Your task to perform on an android device: check google app version Image 0: 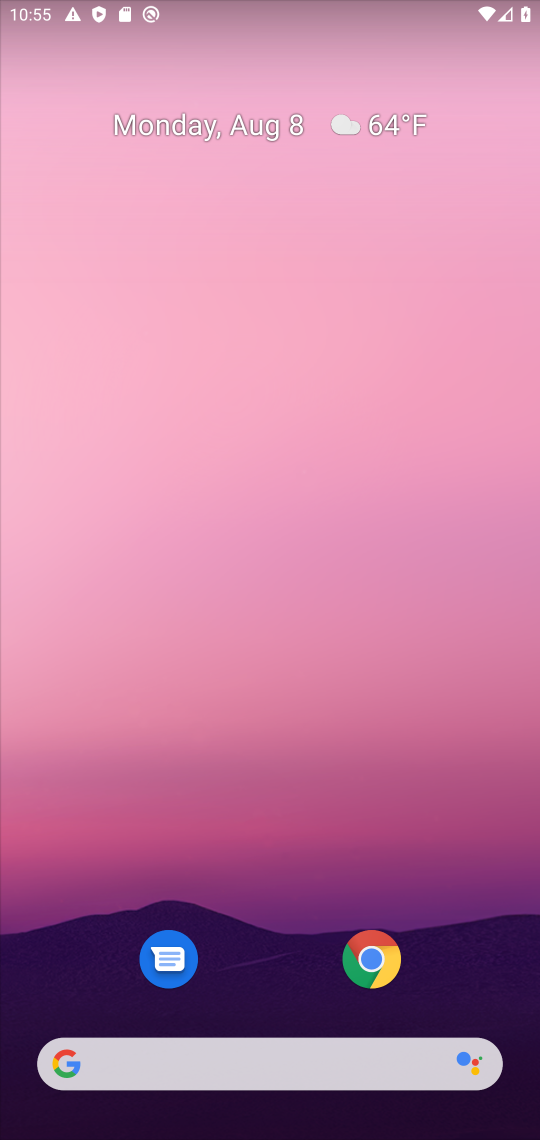
Step 0: drag from (481, 984) to (372, 101)
Your task to perform on an android device: check google app version Image 1: 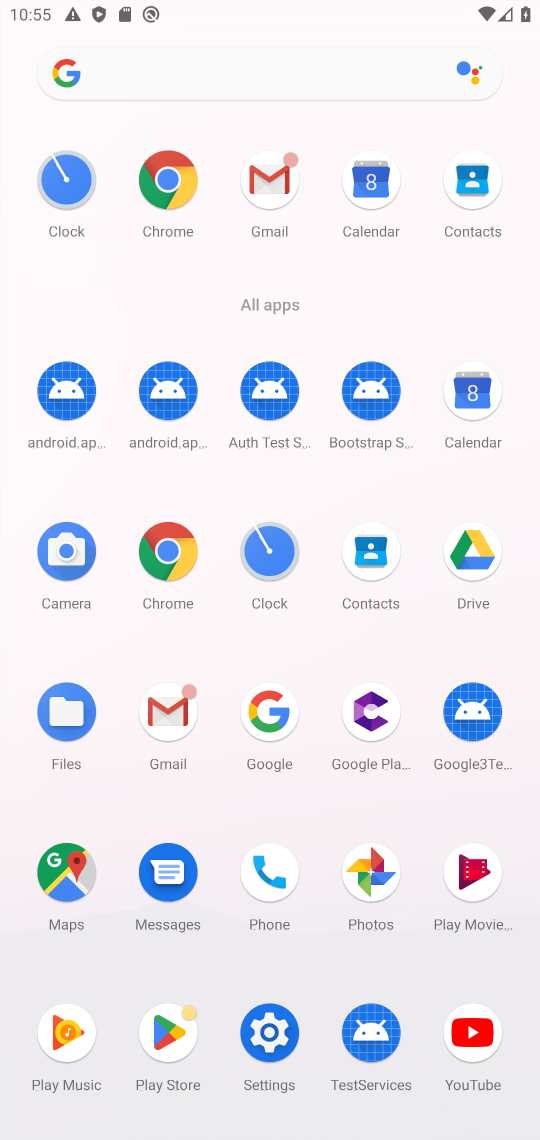
Step 1: click (159, 205)
Your task to perform on an android device: check google app version Image 2: 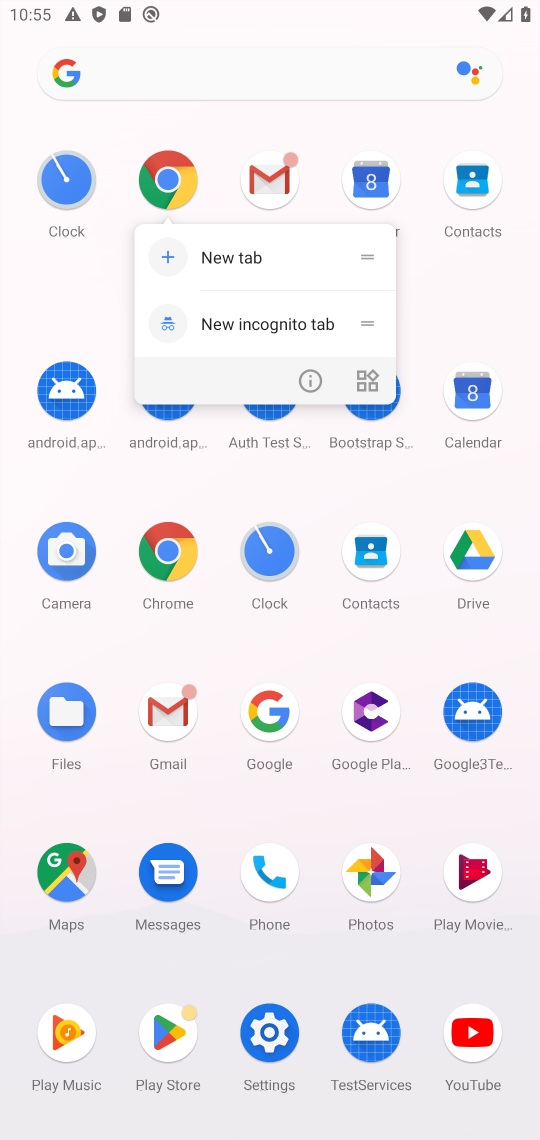
Step 2: click (162, 180)
Your task to perform on an android device: check google app version Image 3: 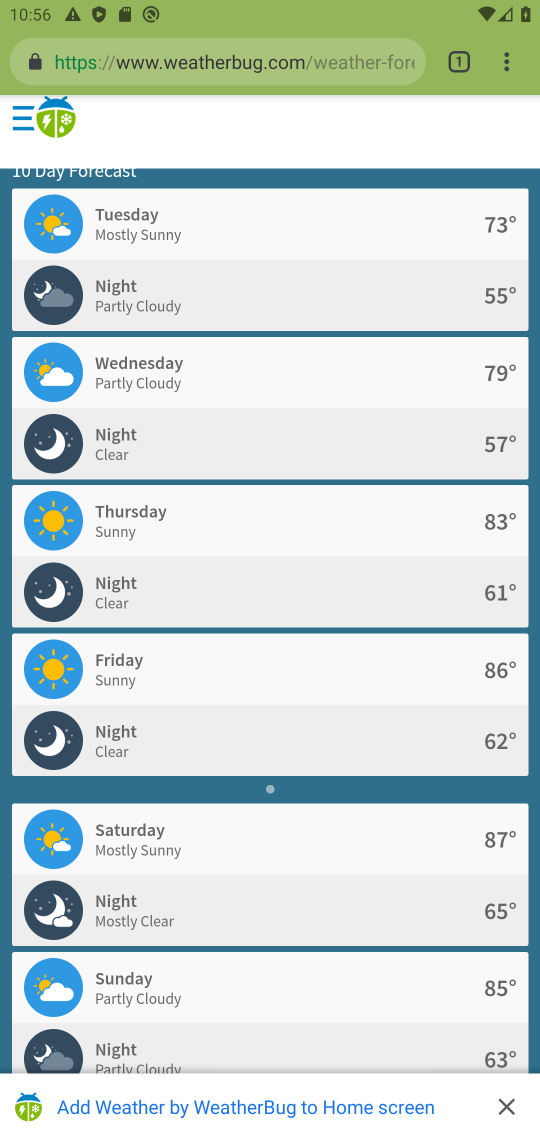
Step 3: click (526, 66)
Your task to perform on an android device: check google app version Image 4: 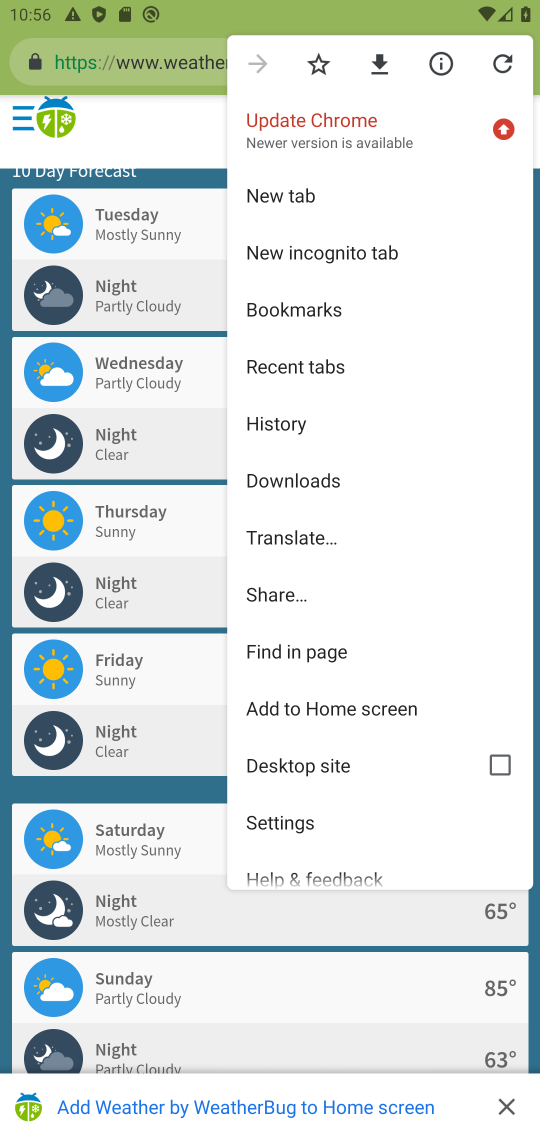
Step 4: click (354, 864)
Your task to perform on an android device: check google app version Image 5: 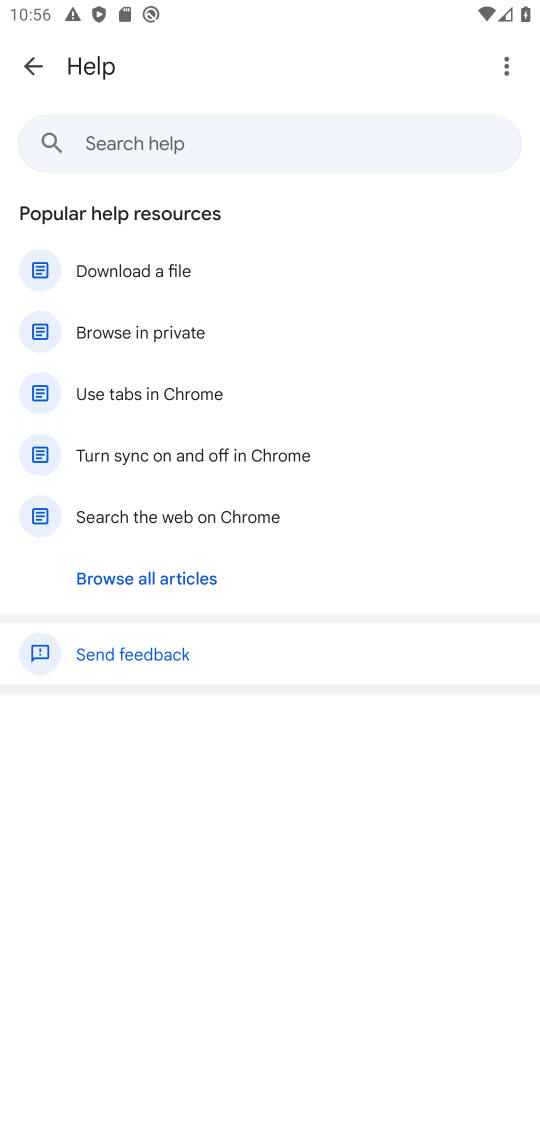
Step 5: click (500, 66)
Your task to perform on an android device: check google app version Image 6: 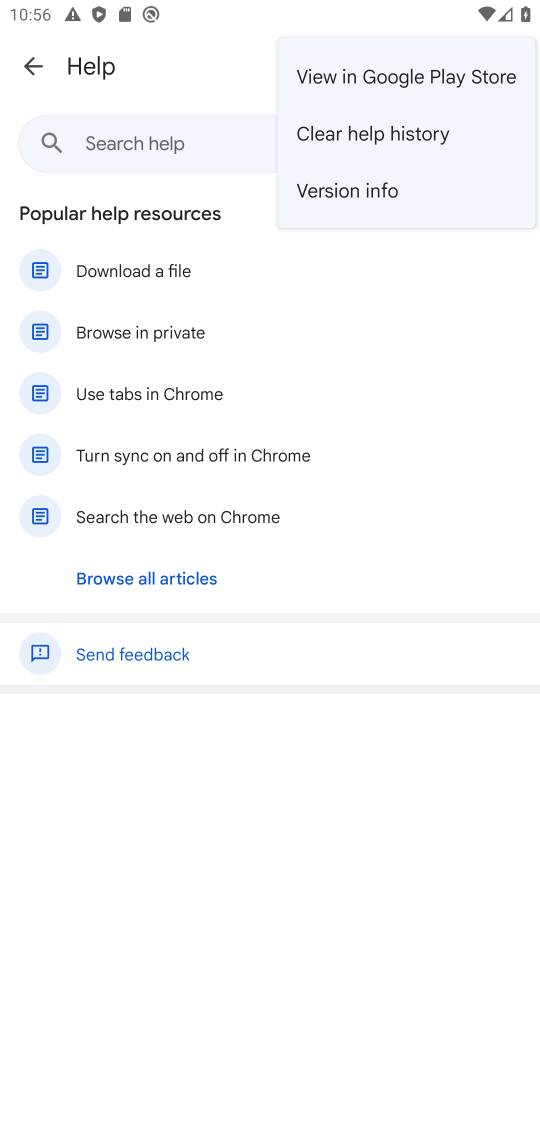
Step 6: click (421, 196)
Your task to perform on an android device: check google app version Image 7: 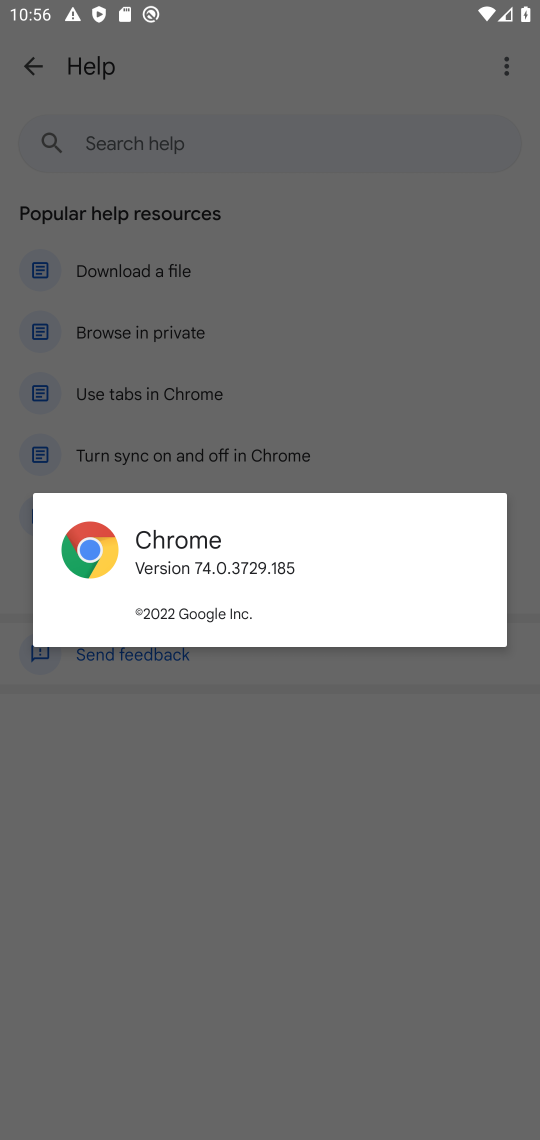
Step 7: task complete